Your task to perform on an android device: Open calendar and show me the third week of next month Image 0: 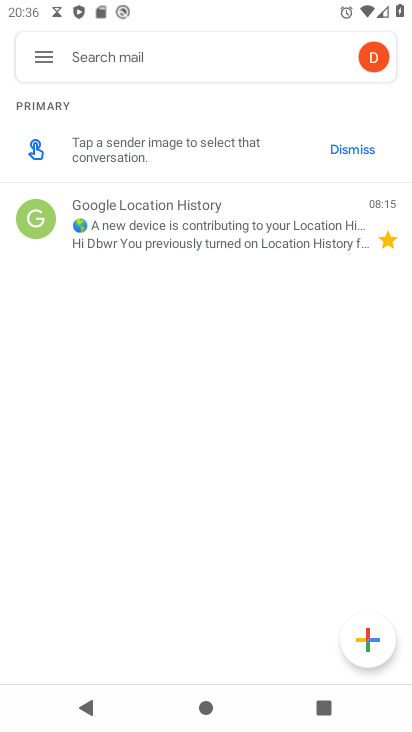
Step 0: press home button
Your task to perform on an android device: Open calendar and show me the third week of next month Image 1: 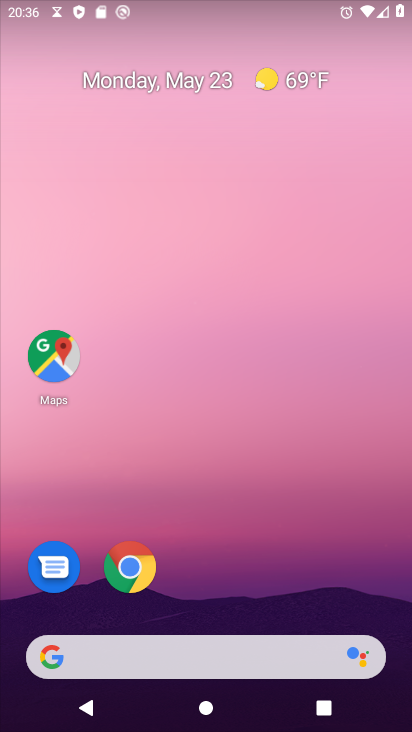
Step 1: drag from (230, 530) to (236, 10)
Your task to perform on an android device: Open calendar and show me the third week of next month Image 2: 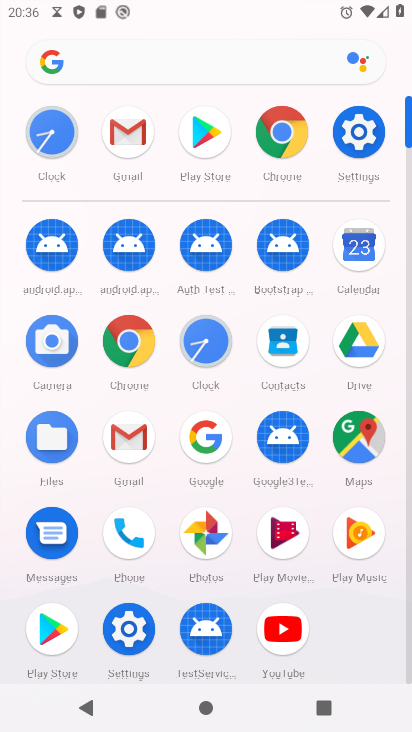
Step 2: click (357, 257)
Your task to perform on an android device: Open calendar and show me the third week of next month Image 3: 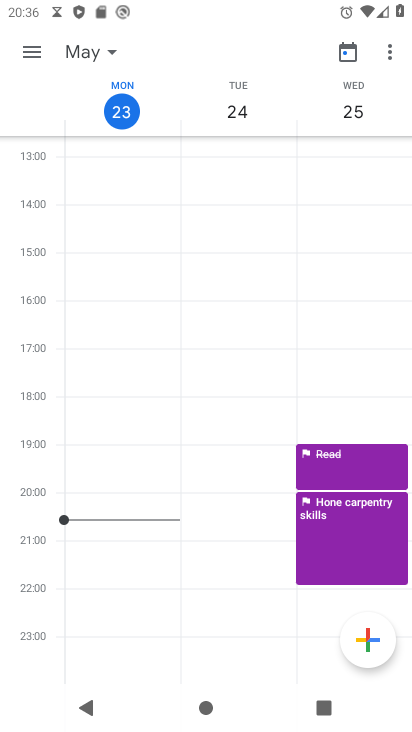
Step 3: click (38, 45)
Your task to perform on an android device: Open calendar and show me the third week of next month Image 4: 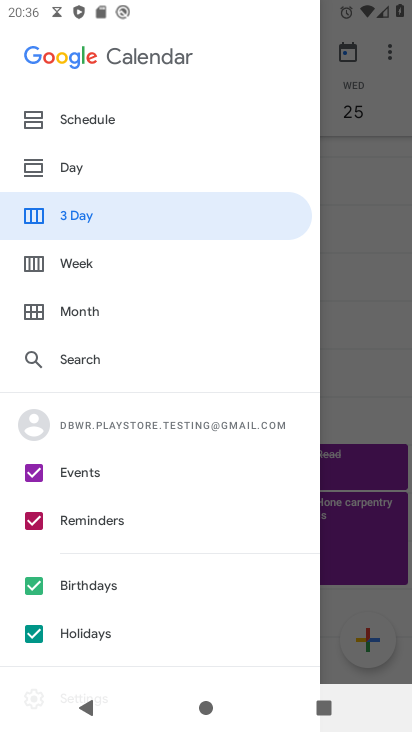
Step 4: click (87, 255)
Your task to perform on an android device: Open calendar and show me the third week of next month Image 5: 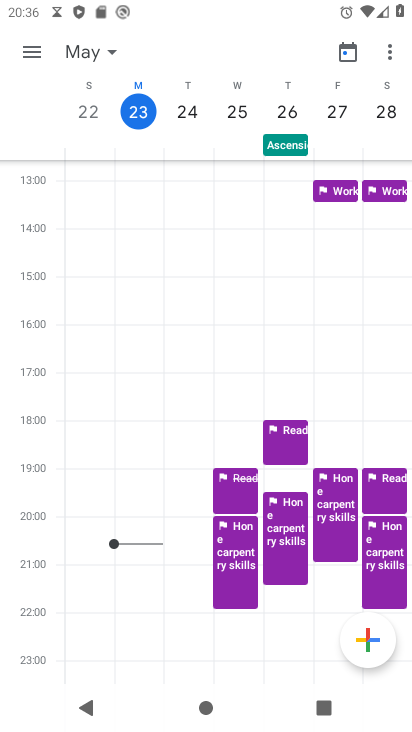
Step 5: task complete